Your task to perform on an android device: Go to location settings Image 0: 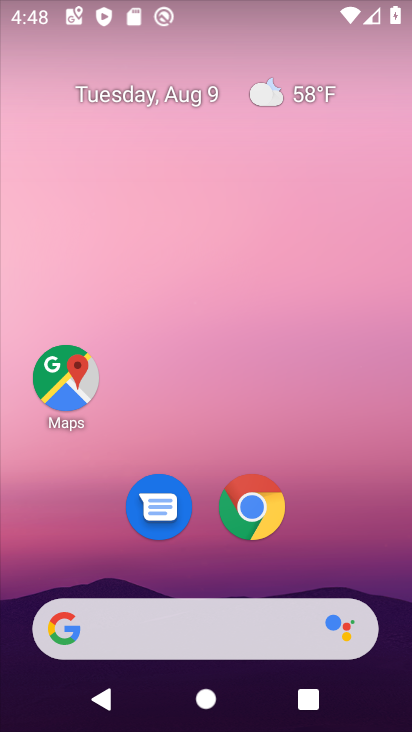
Step 0: drag from (354, 550) to (347, 70)
Your task to perform on an android device: Go to location settings Image 1: 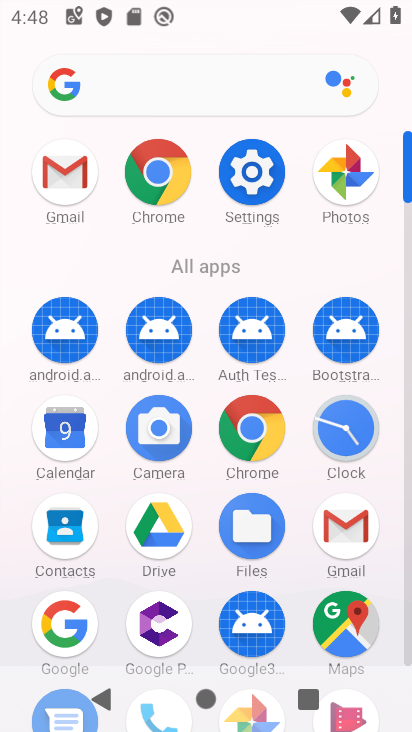
Step 1: click (250, 174)
Your task to perform on an android device: Go to location settings Image 2: 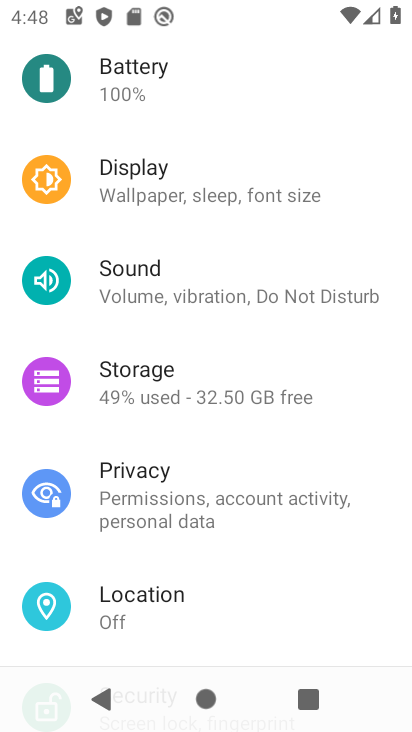
Step 2: click (161, 611)
Your task to perform on an android device: Go to location settings Image 3: 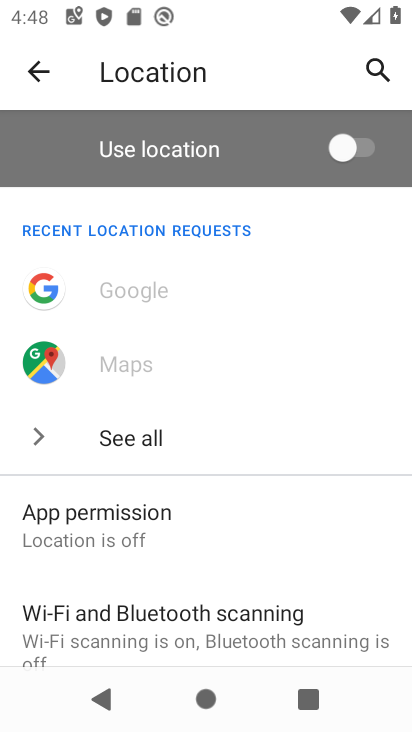
Step 3: task complete